Your task to perform on an android device: Do I have any events today? Image 0: 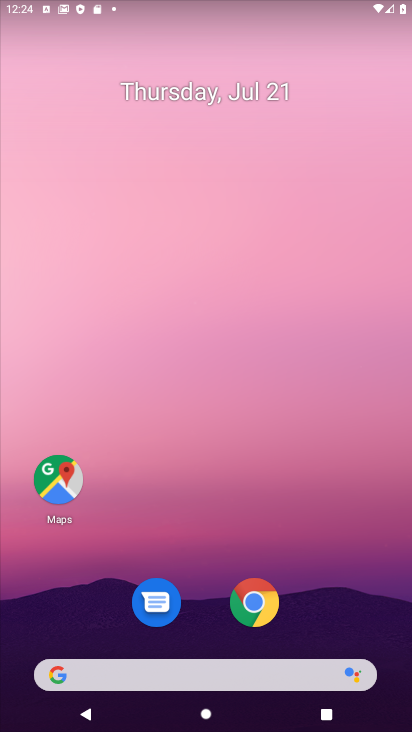
Step 0: drag from (381, 608) to (155, 17)
Your task to perform on an android device: Do I have any events today? Image 1: 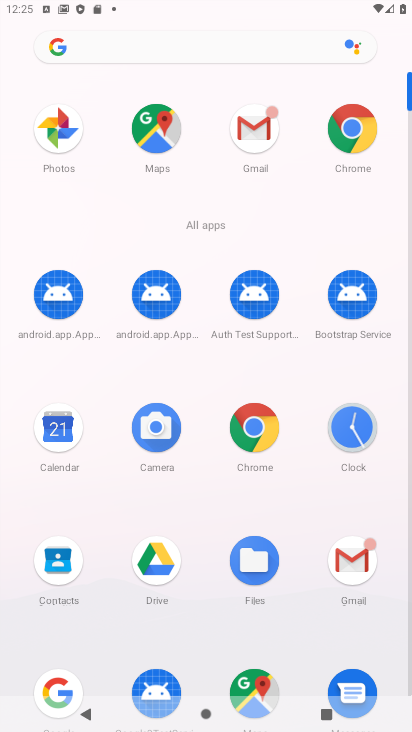
Step 1: click (63, 435)
Your task to perform on an android device: Do I have any events today? Image 2: 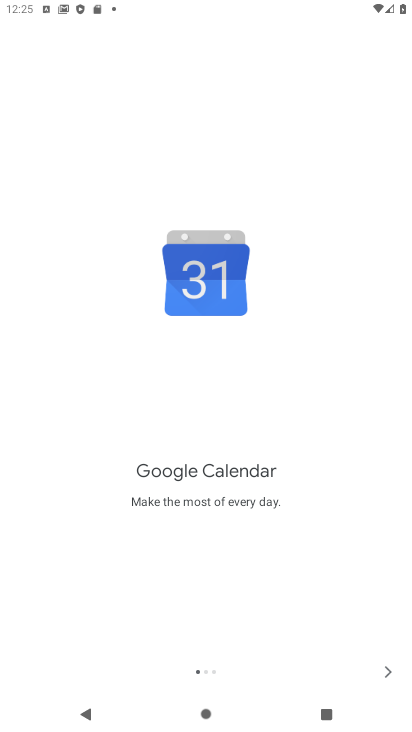
Step 2: click (385, 671)
Your task to perform on an android device: Do I have any events today? Image 3: 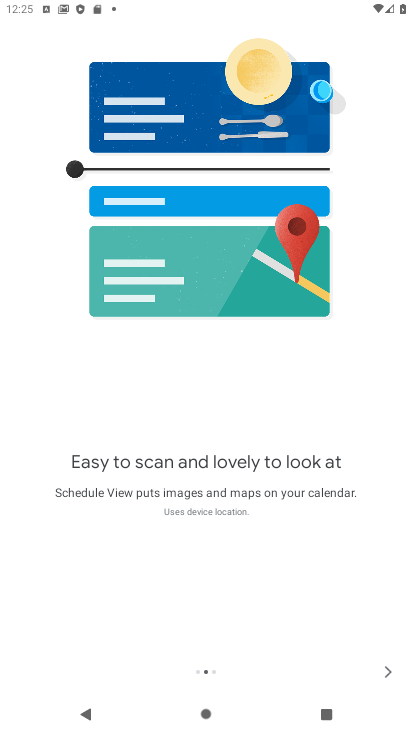
Step 3: click (387, 659)
Your task to perform on an android device: Do I have any events today? Image 4: 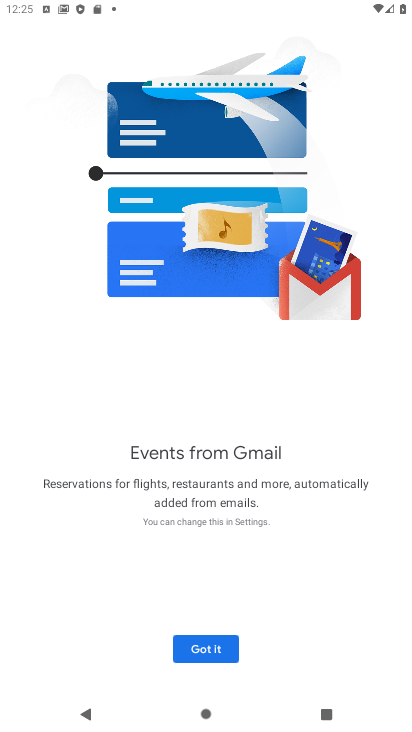
Step 4: click (387, 659)
Your task to perform on an android device: Do I have any events today? Image 5: 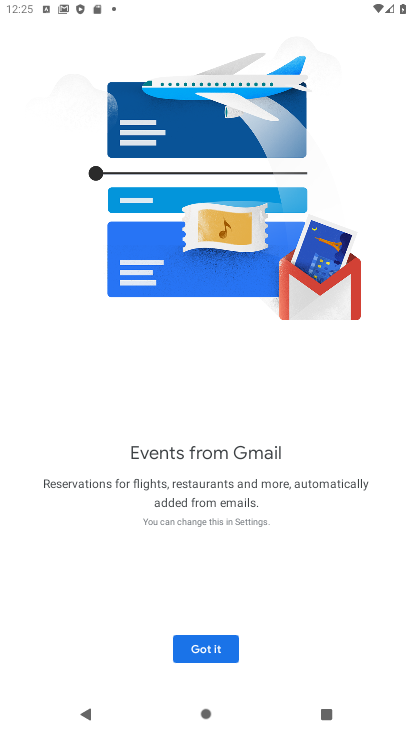
Step 5: click (203, 641)
Your task to perform on an android device: Do I have any events today? Image 6: 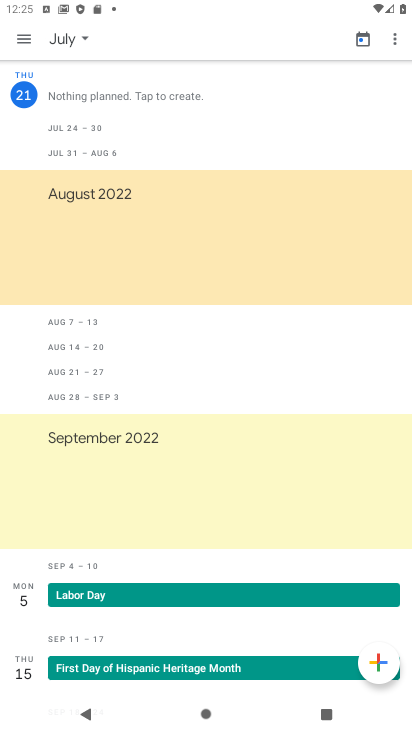
Step 6: task complete